Your task to perform on an android device: Open Android settings Image 0: 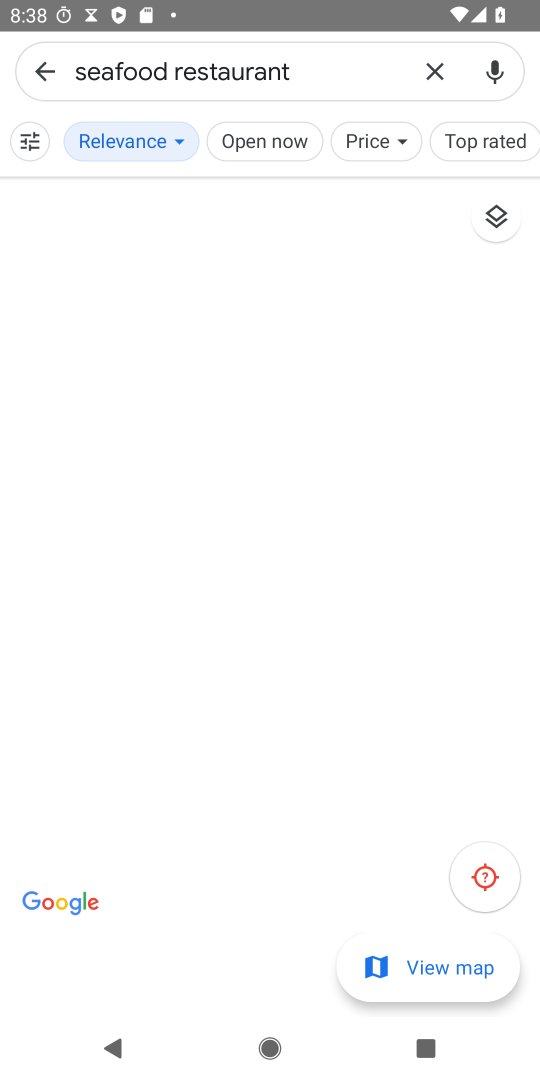
Step 0: press home button
Your task to perform on an android device: Open Android settings Image 1: 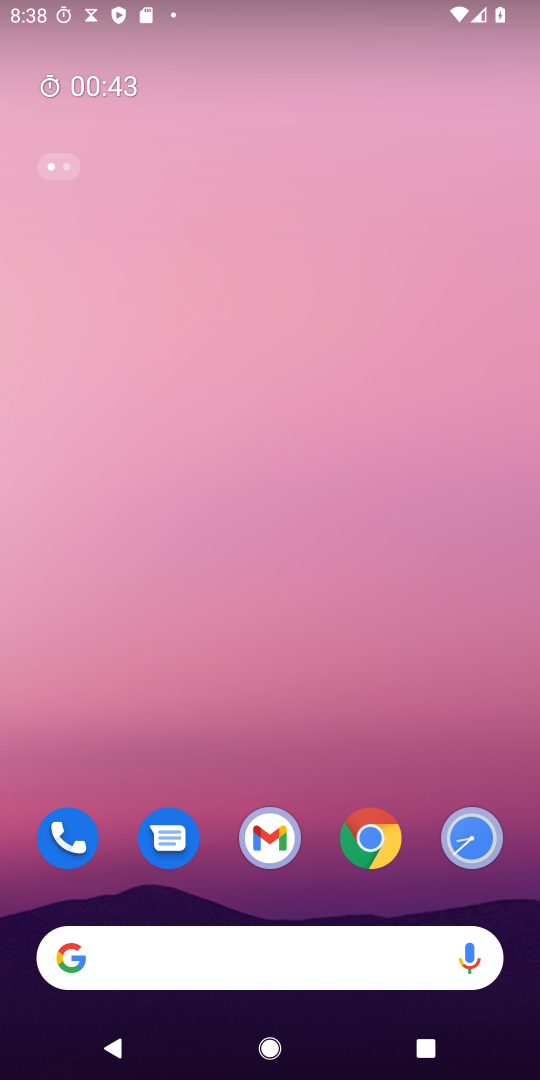
Step 1: drag from (313, 765) to (193, 6)
Your task to perform on an android device: Open Android settings Image 2: 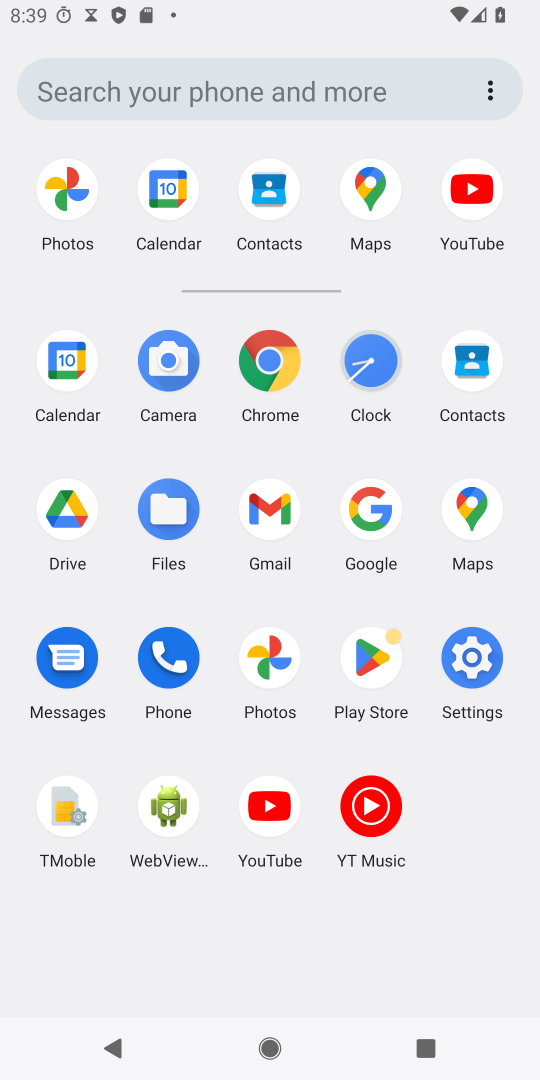
Step 2: click (456, 693)
Your task to perform on an android device: Open Android settings Image 3: 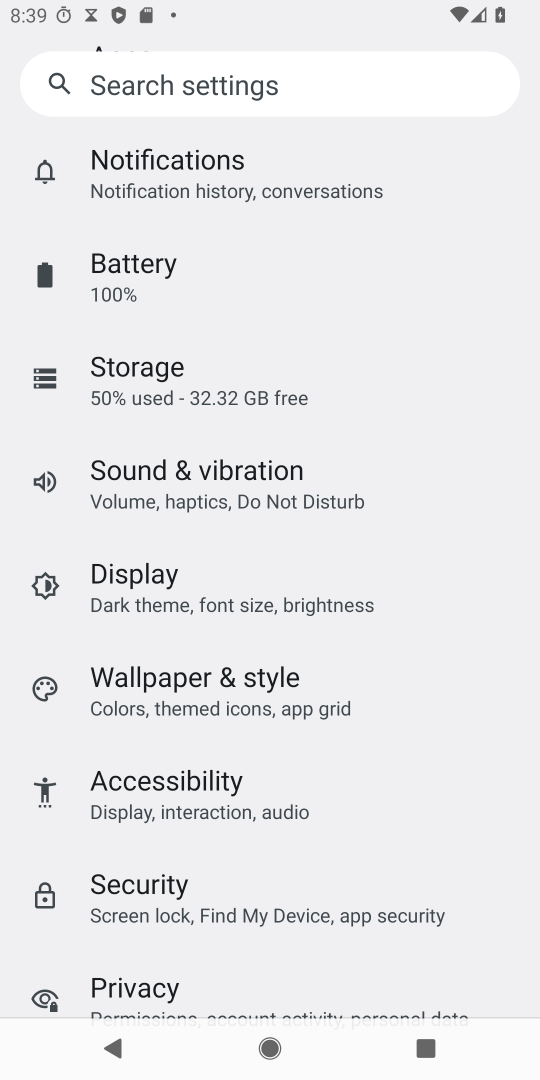
Step 3: drag from (207, 867) to (225, 292)
Your task to perform on an android device: Open Android settings Image 4: 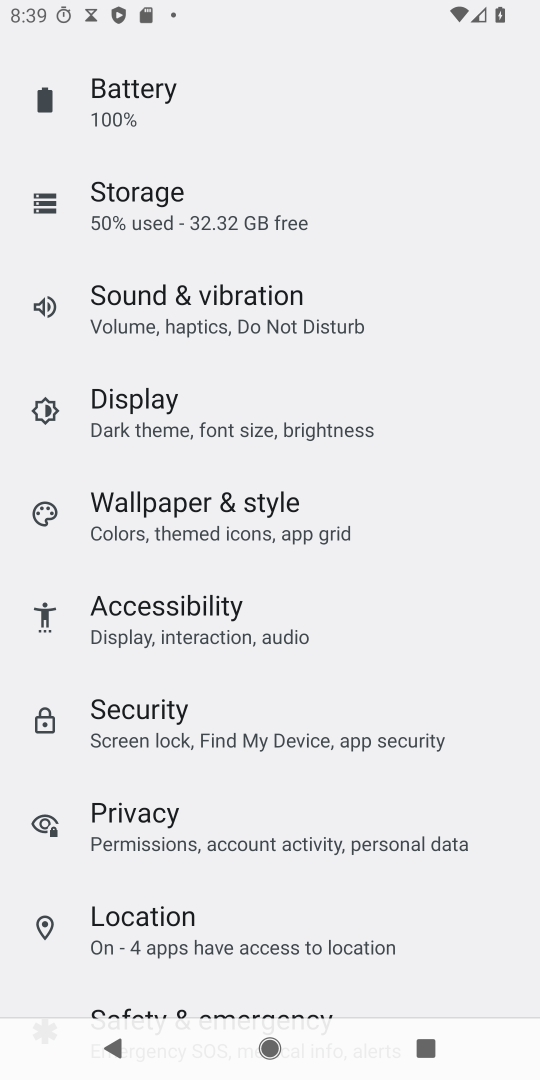
Step 4: drag from (313, 918) to (167, 25)
Your task to perform on an android device: Open Android settings Image 5: 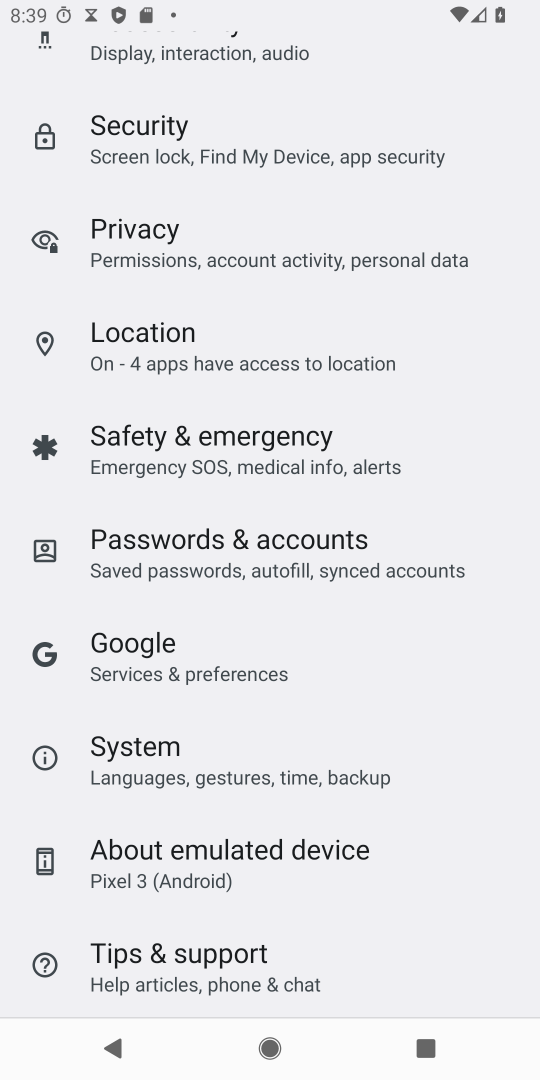
Step 5: drag from (386, 885) to (233, 460)
Your task to perform on an android device: Open Android settings Image 6: 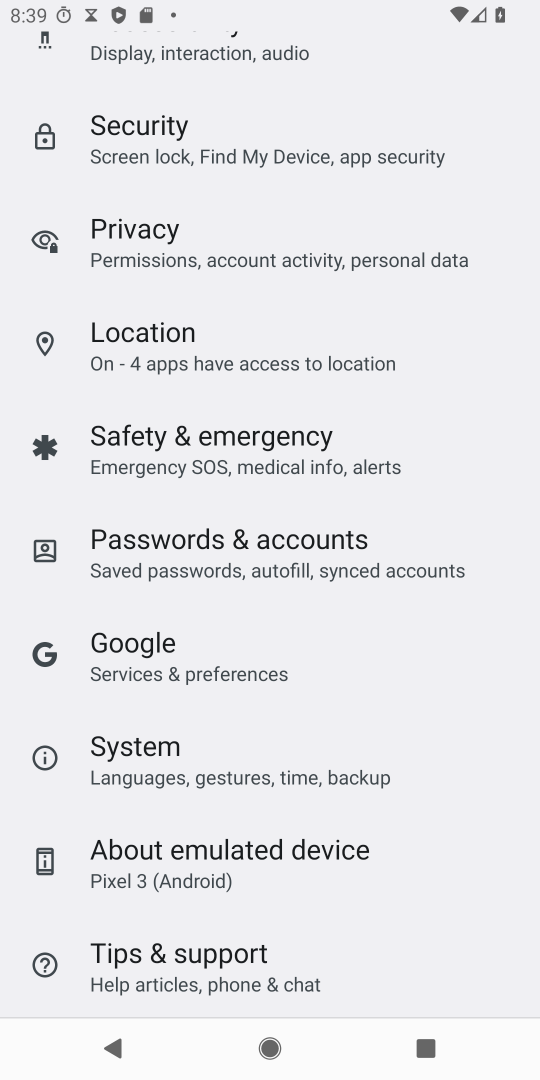
Step 6: click (129, 863)
Your task to perform on an android device: Open Android settings Image 7: 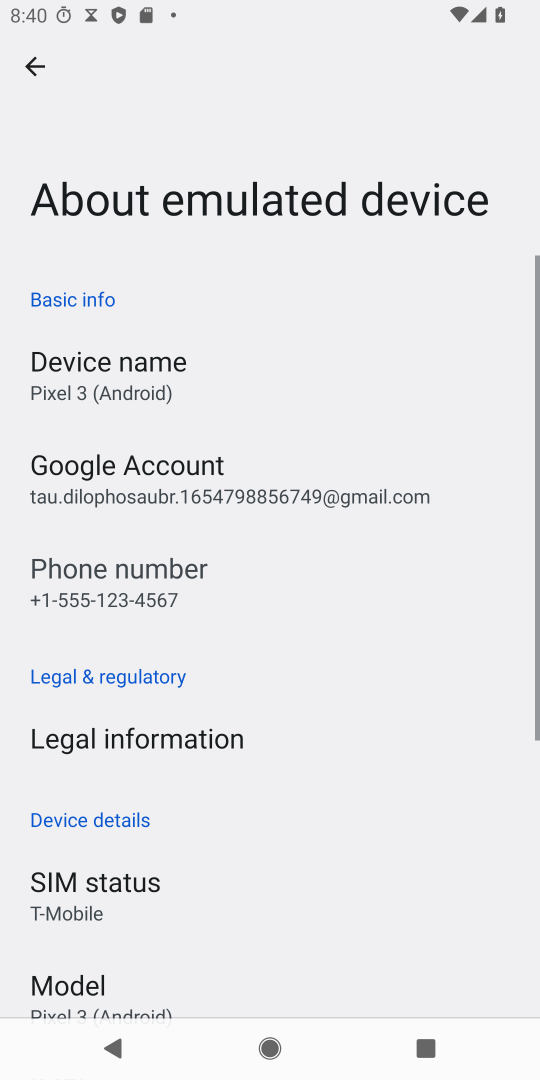
Step 7: drag from (228, 778) to (222, 345)
Your task to perform on an android device: Open Android settings Image 8: 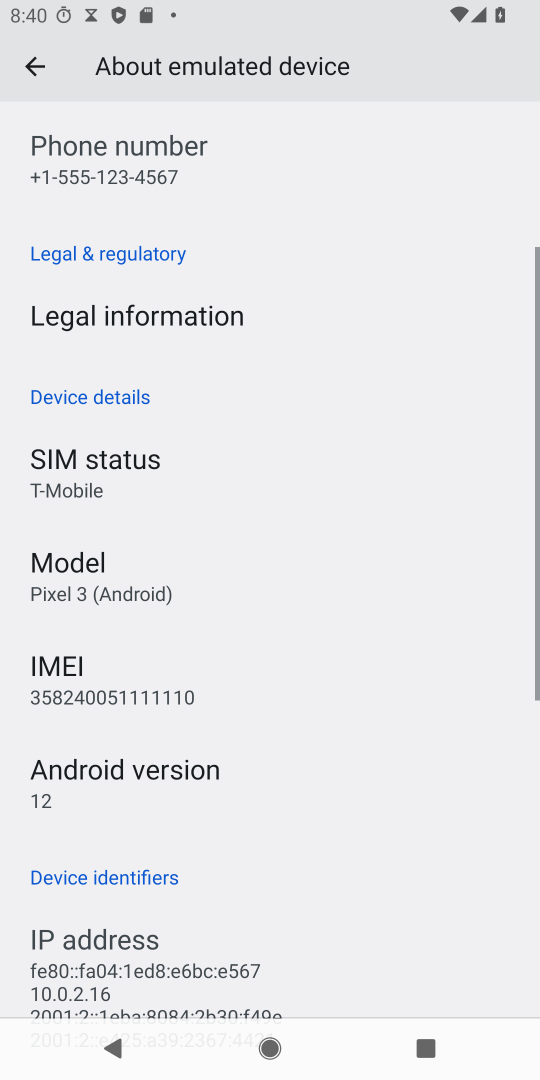
Step 8: click (60, 766)
Your task to perform on an android device: Open Android settings Image 9: 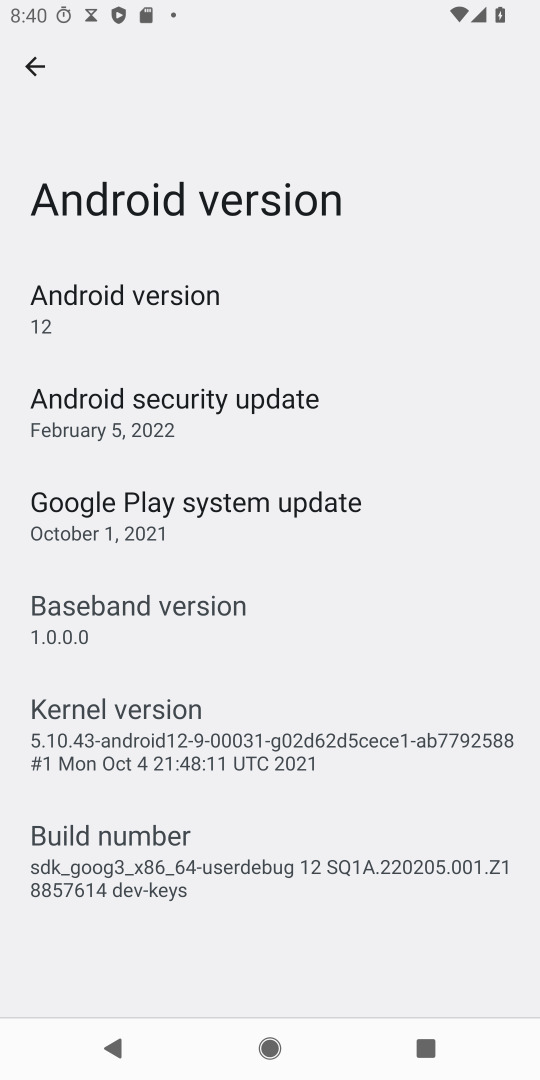
Step 9: task complete